Your task to perform on an android device: Open location settings Image 0: 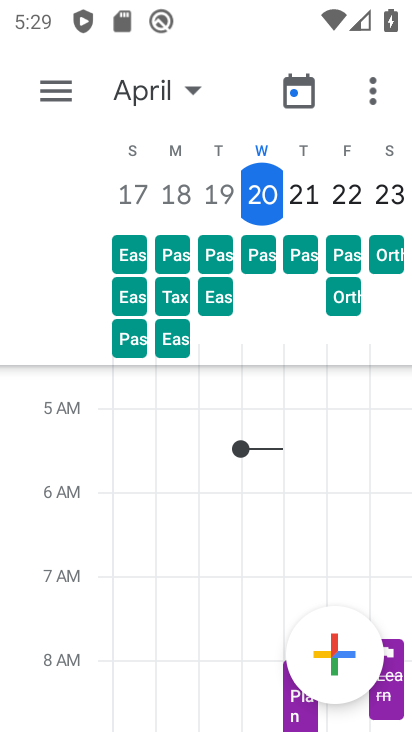
Step 0: press home button
Your task to perform on an android device: Open location settings Image 1: 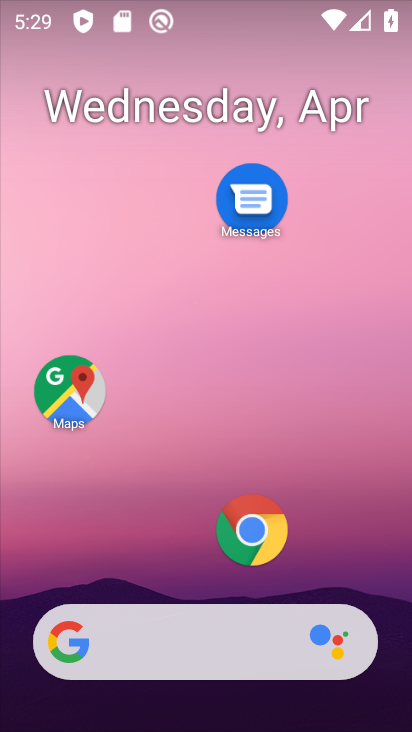
Step 1: drag from (181, 554) to (259, 52)
Your task to perform on an android device: Open location settings Image 2: 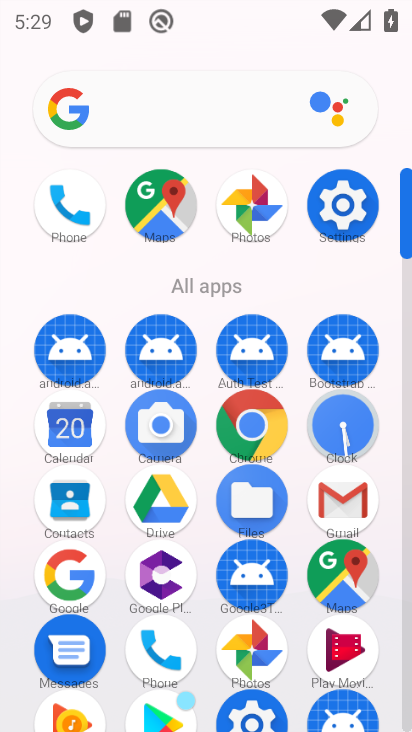
Step 2: click (345, 206)
Your task to perform on an android device: Open location settings Image 3: 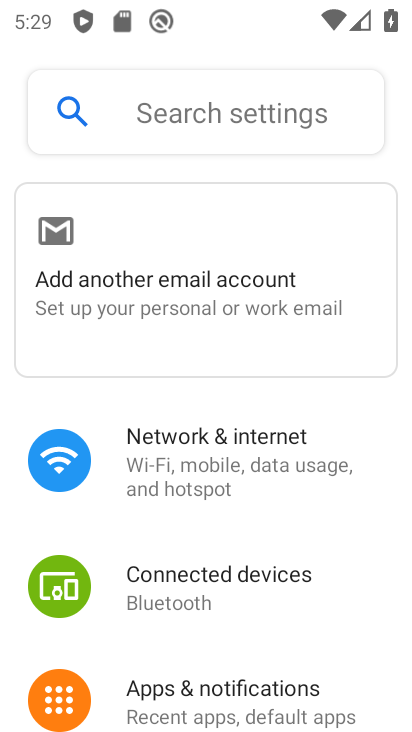
Step 3: drag from (220, 632) to (258, 446)
Your task to perform on an android device: Open location settings Image 4: 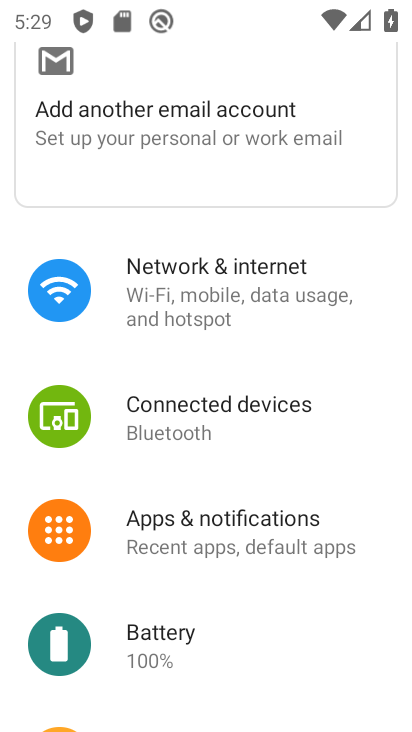
Step 4: drag from (257, 593) to (301, 414)
Your task to perform on an android device: Open location settings Image 5: 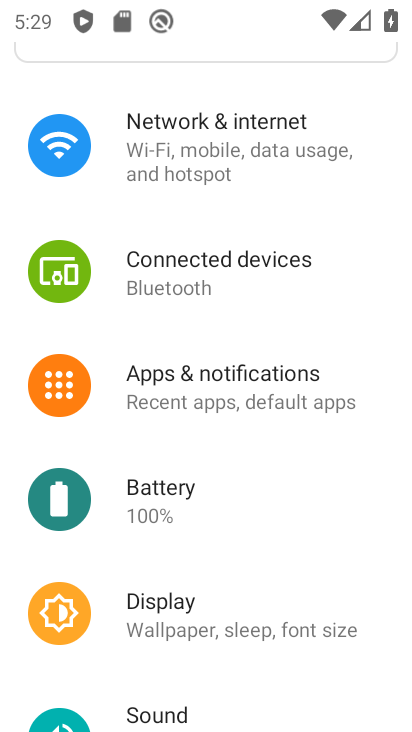
Step 5: drag from (172, 564) to (245, 427)
Your task to perform on an android device: Open location settings Image 6: 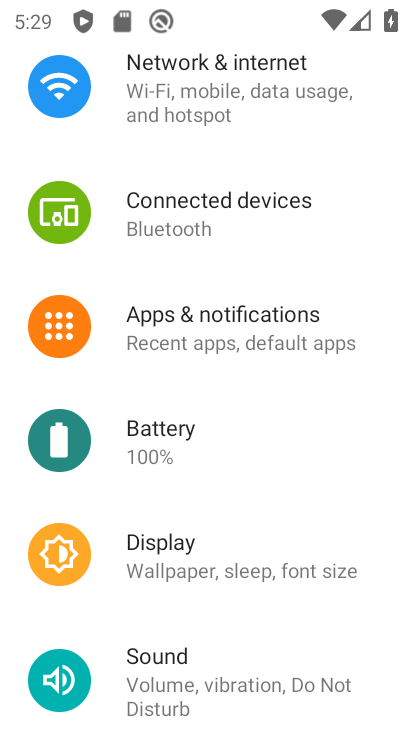
Step 6: drag from (210, 599) to (247, 501)
Your task to perform on an android device: Open location settings Image 7: 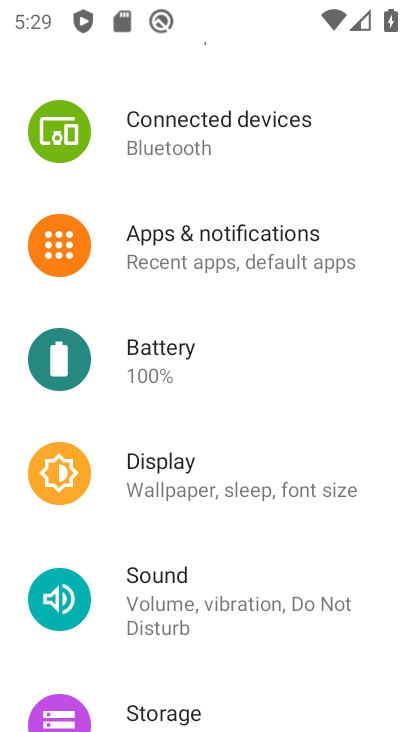
Step 7: drag from (208, 630) to (254, 495)
Your task to perform on an android device: Open location settings Image 8: 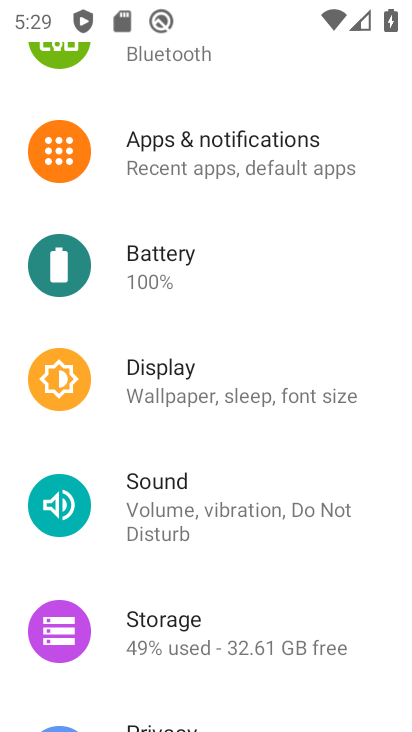
Step 8: drag from (224, 612) to (283, 435)
Your task to perform on an android device: Open location settings Image 9: 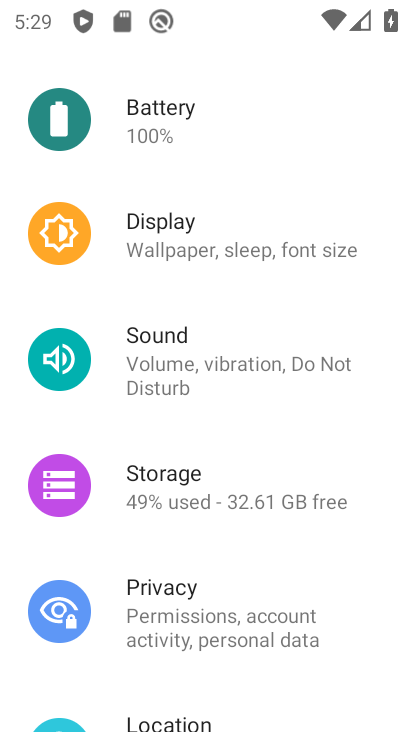
Step 9: drag from (214, 568) to (262, 419)
Your task to perform on an android device: Open location settings Image 10: 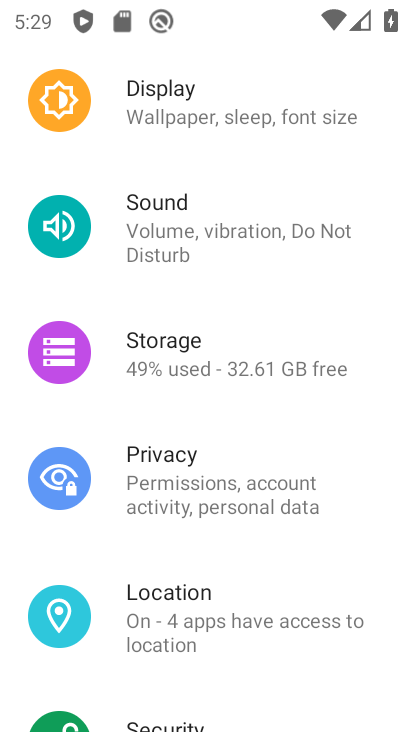
Step 10: click (187, 603)
Your task to perform on an android device: Open location settings Image 11: 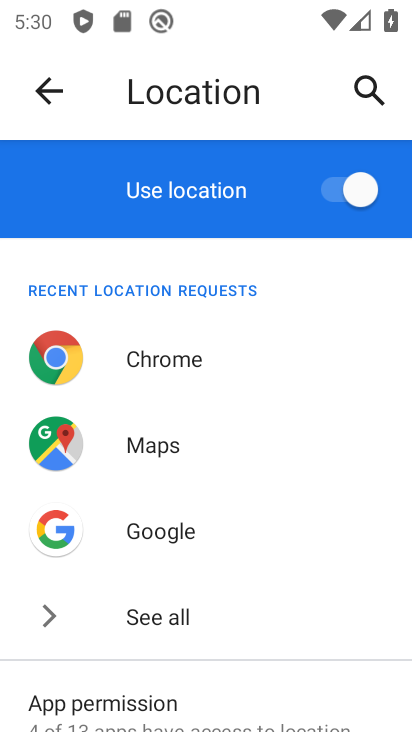
Step 11: task complete